Your task to perform on an android device: change notification settings in the gmail app Image 0: 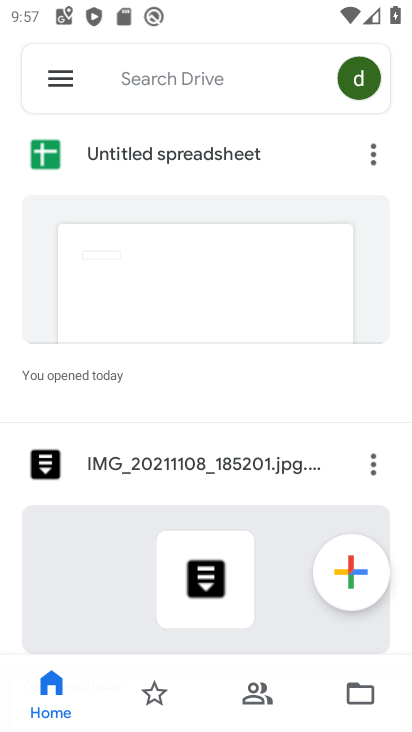
Step 0: press home button
Your task to perform on an android device: change notification settings in the gmail app Image 1: 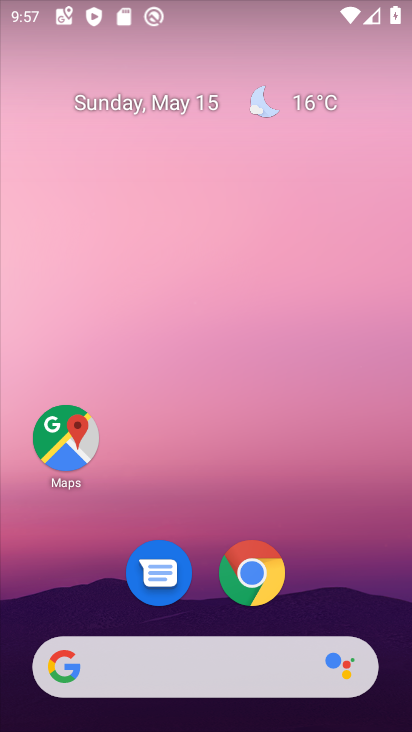
Step 1: drag from (357, 582) to (356, 3)
Your task to perform on an android device: change notification settings in the gmail app Image 2: 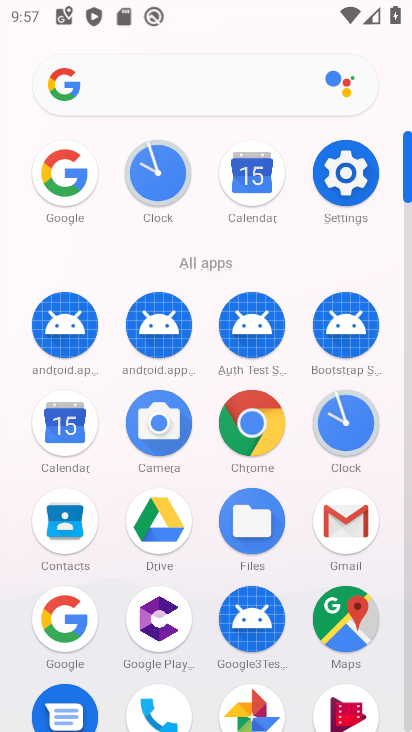
Step 2: click (340, 534)
Your task to perform on an android device: change notification settings in the gmail app Image 3: 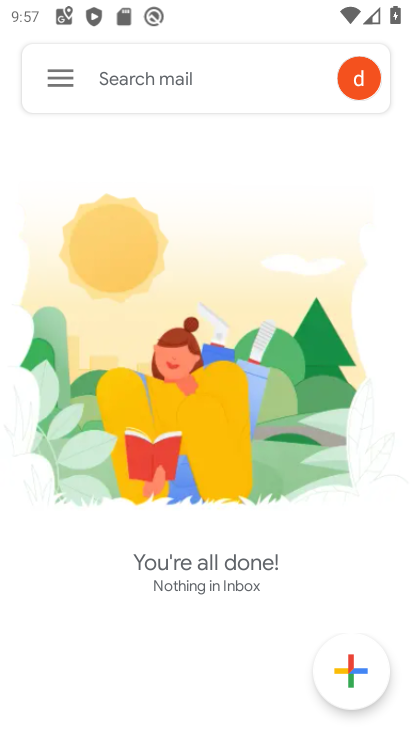
Step 3: click (52, 70)
Your task to perform on an android device: change notification settings in the gmail app Image 4: 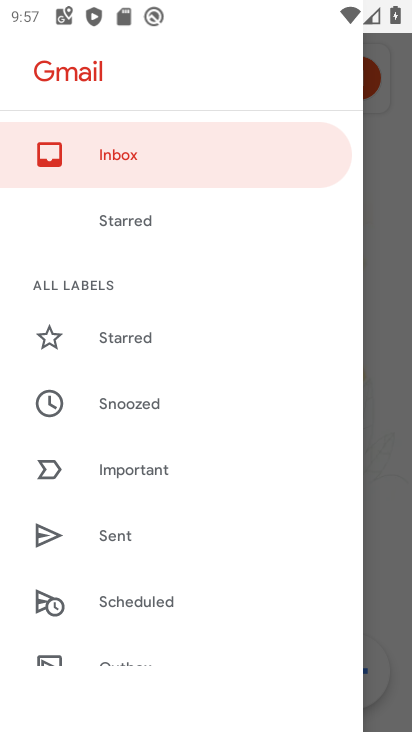
Step 4: press home button
Your task to perform on an android device: change notification settings in the gmail app Image 5: 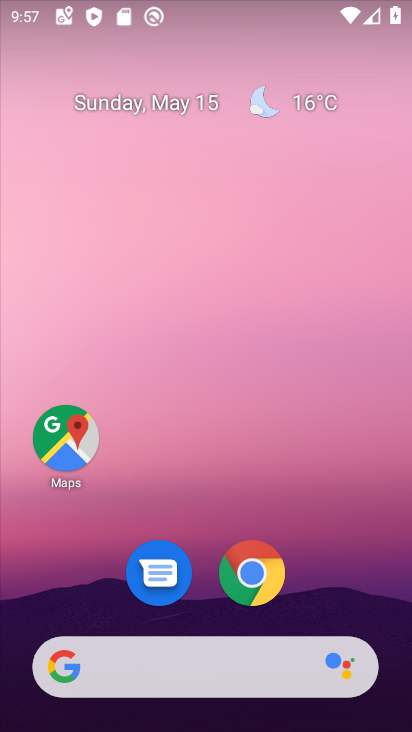
Step 5: drag from (360, 598) to (283, 18)
Your task to perform on an android device: change notification settings in the gmail app Image 6: 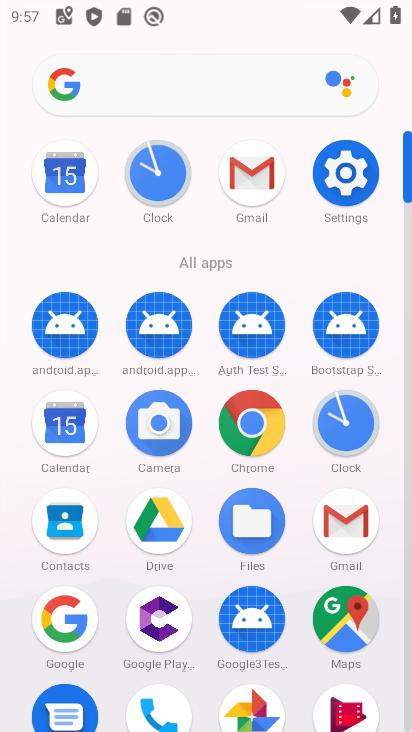
Step 6: click (365, 519)
Your task to perform on an android device: change notification settings in the gmail app Image 7: 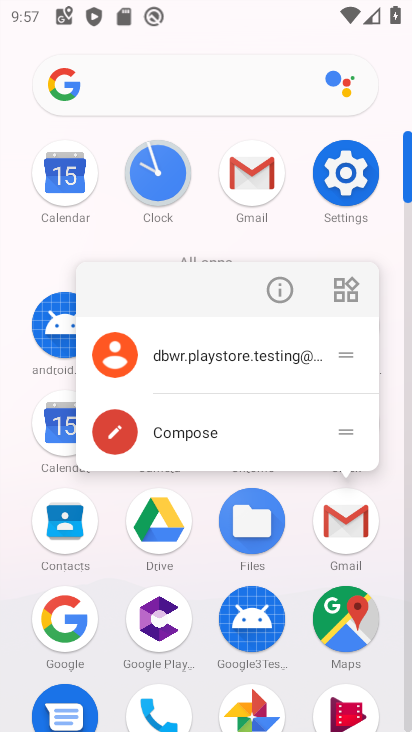
Step 7: click (286, 288)
Your task to perform on an android device: change notification settings in the gmail app Image 8: 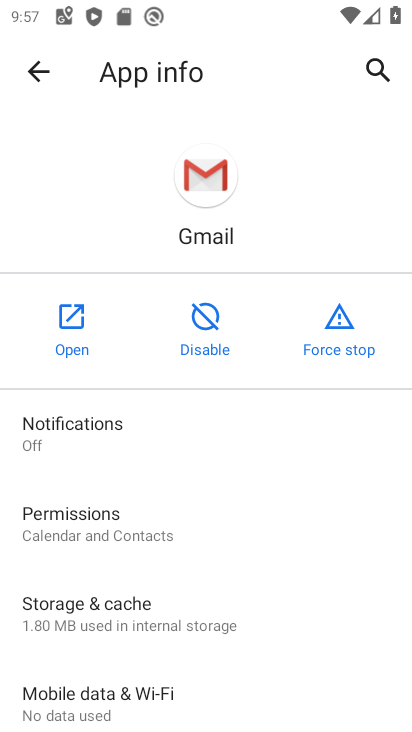
Step 8: click (109, 451)
Your task to perform on an android device: change notification settings in the gmail app Image 9: 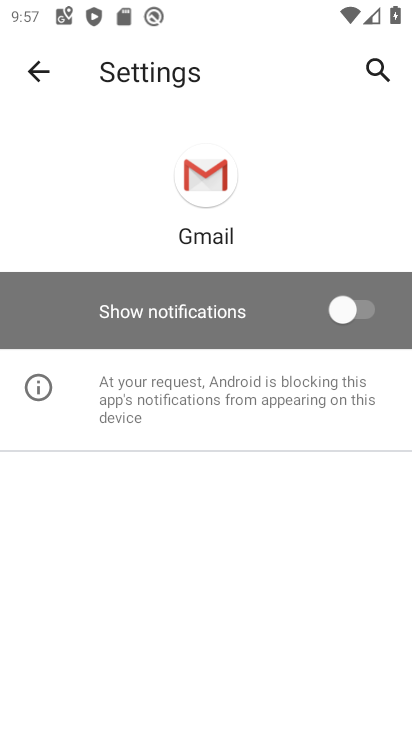
Step 9: click (374, 290)
Your task to perform on an android device: change notification settings in the gmail app Image 10: 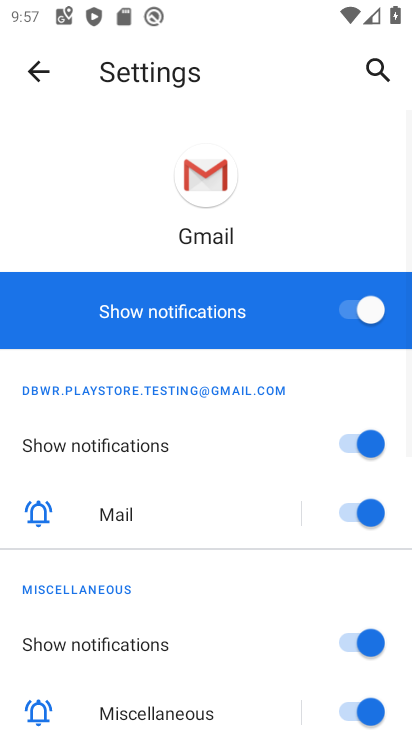
Step 10: task complete